Your task to perform on an android device: check out phone information Image 0: 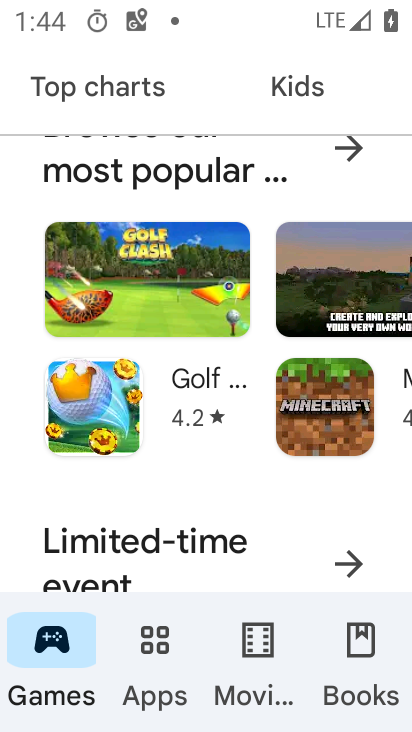
Step 0: press home button
Your task to perform on an android device: check out phone information Image 1: 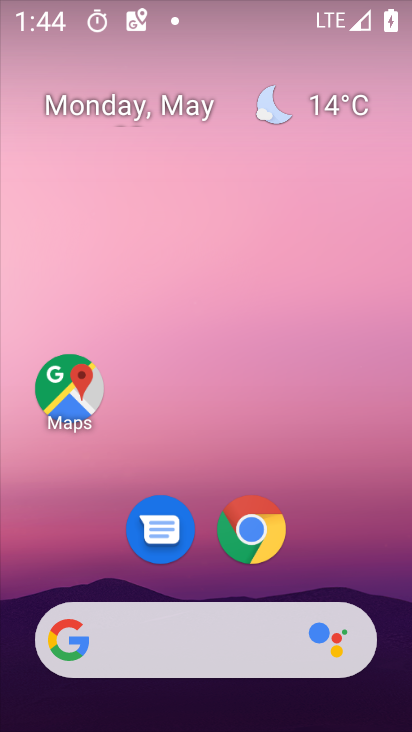
Step 1: drag from (369, 562) to (362, 162)
Your task to perform on an android device: check out phone information Image 2: 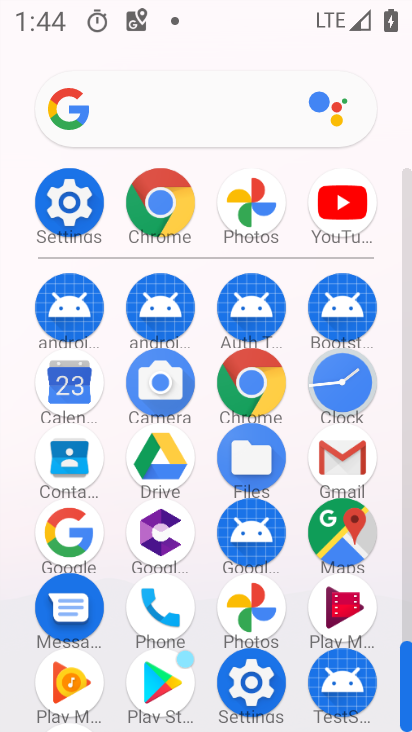
Step 2: drag from (392, 583) to (376, 346)
Your task to perform on an android device: check out phone information Image 3: 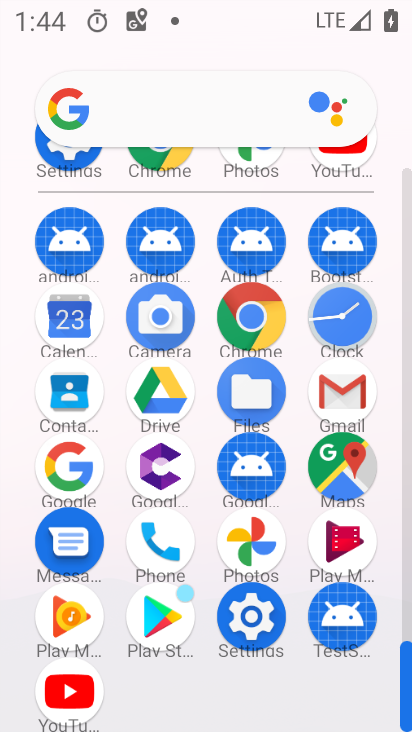
Step 3: click (164, 552)
Your task to perform on an android device: check out phone information Image 4: 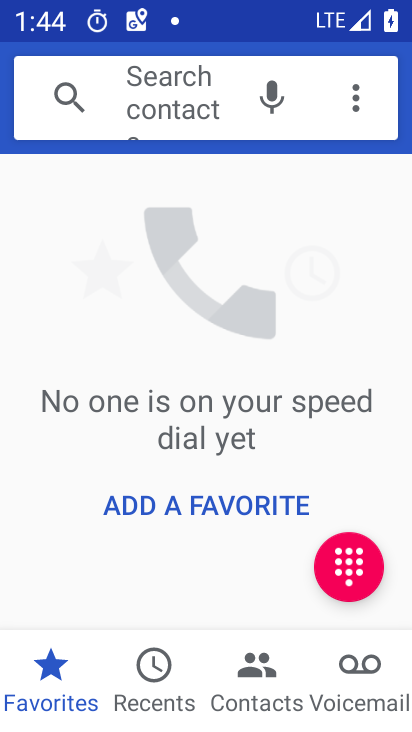
Step 4: click (159, 695)
Your task to perform on an android device: check out phone information Image 5: 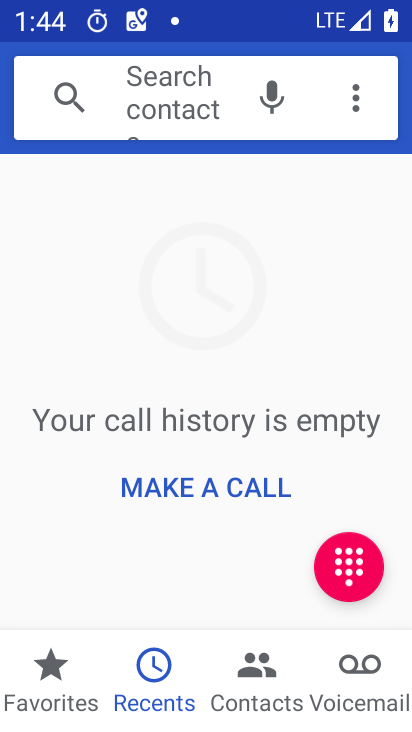
Step 5: task complete